Your task to perform on an android device: open device folders in google photos Image 0: 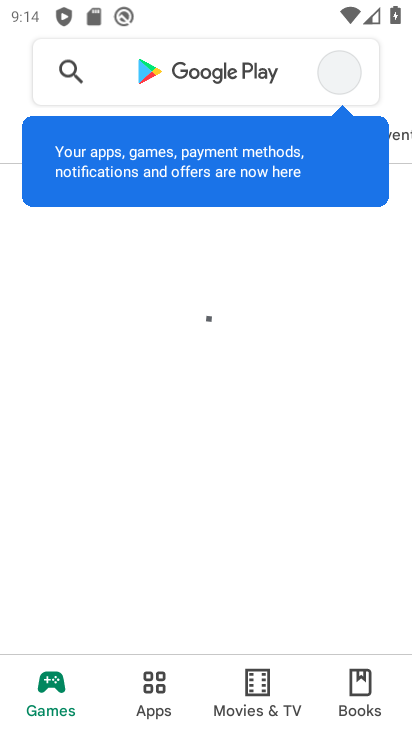
Step 0: press home button
Your task to perform on an android device: open device folders in google photos Image 1: 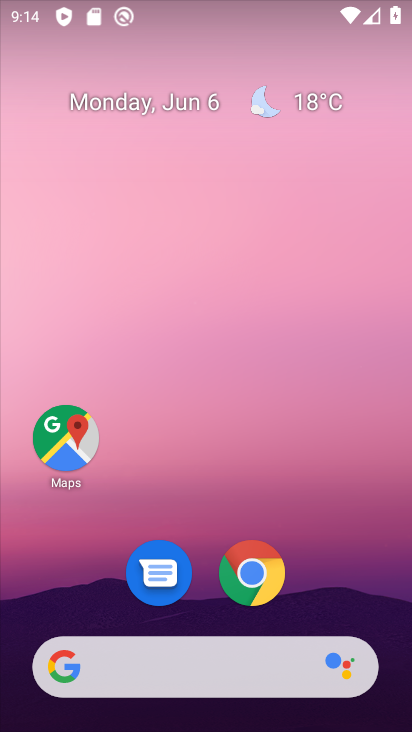
Step 1: drag from (397, 615) to (303, 9)
Your task to perform on an android device: open device folders in google photos Image 2: 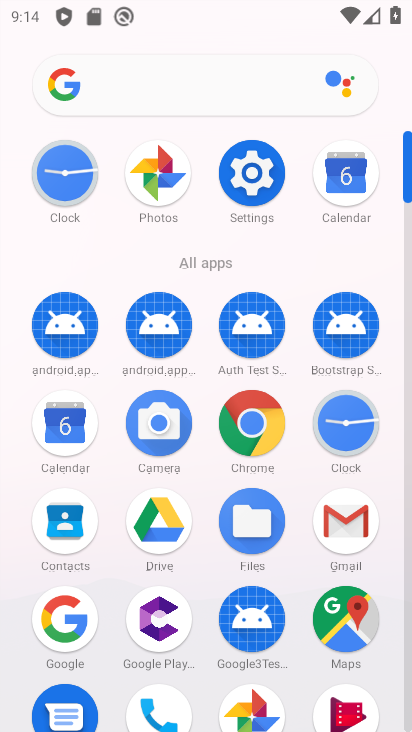
Step 2: click (160, 172)
Your task to perform on an android device: open device folders in google photos Image 3: 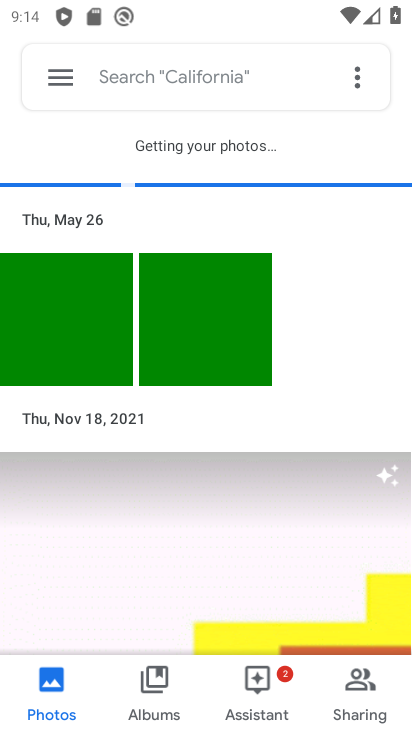
Step 3: click (59, 90)
Your task to perform on an android device: open device folders in google photos Image 4: 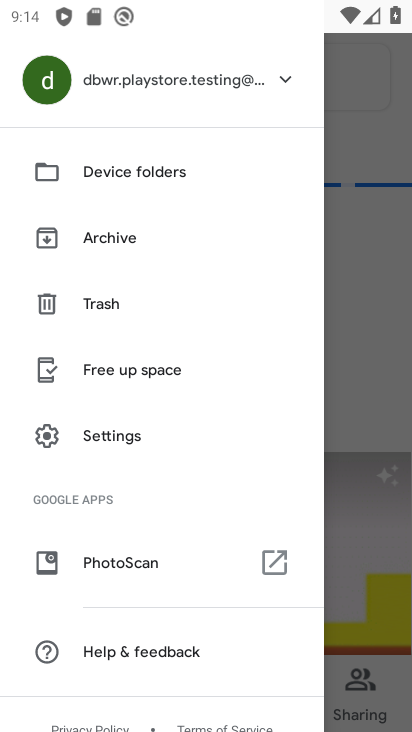
Step 4: click (101, 164)
Your task to perform on an android device: open device folders in google photos Image 5: 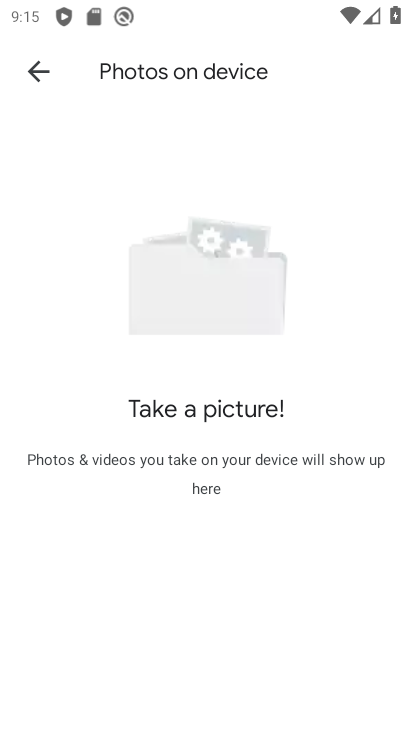
Step 5: task complete